Your task to perform on an android device: Go to ESPN.com Image 0: 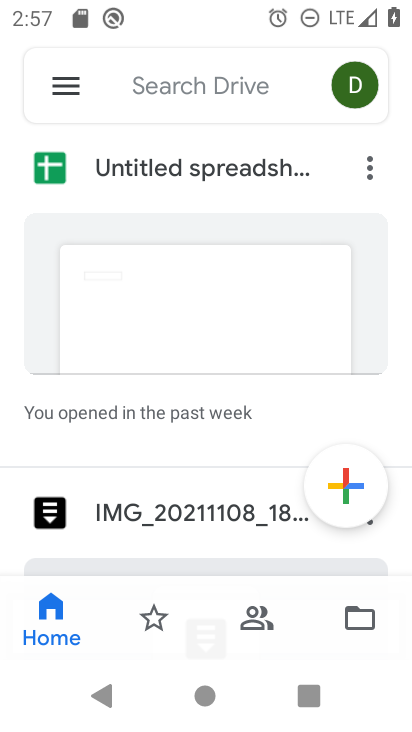
Step 0: press home button
Your task to perform on an android device: Go to ESPN.com Image 1: 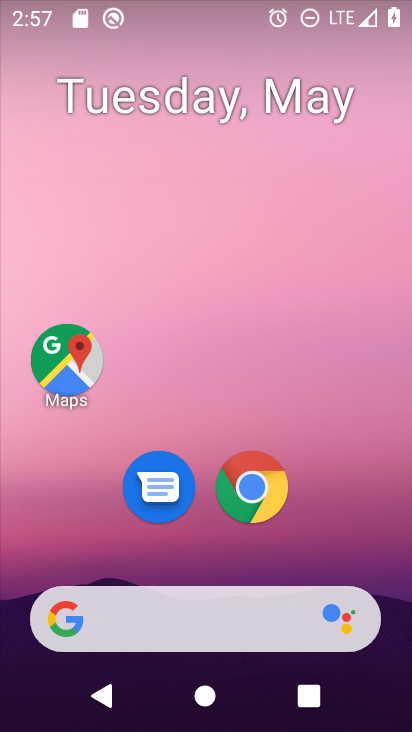
Step 1: click (258, 480)
Your task to perform on an android device: Go to ESPN.com Image 2: 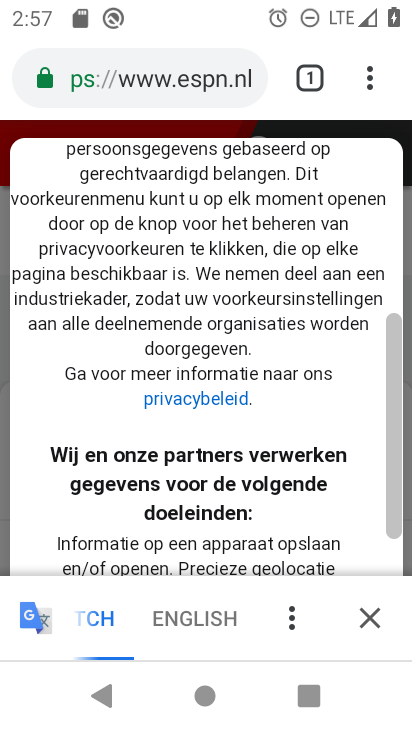
Step 2: click (299, 80)
Your task to perform on an android device: Go to ESPN.com Image 3: 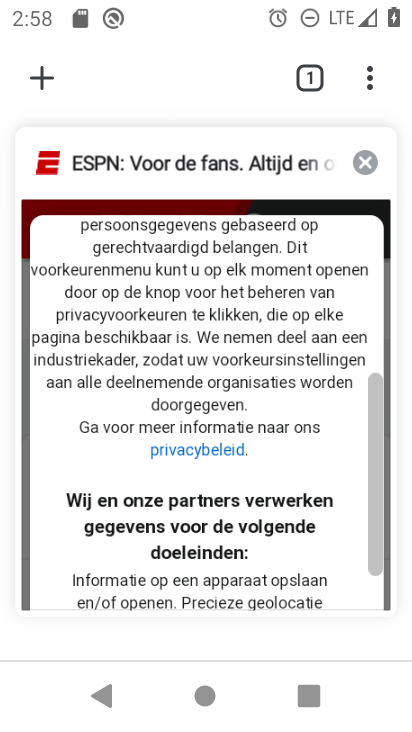
Step 3: click (36, 79)
Your task to perform on an android device: Go to ESPN.com Image 4: 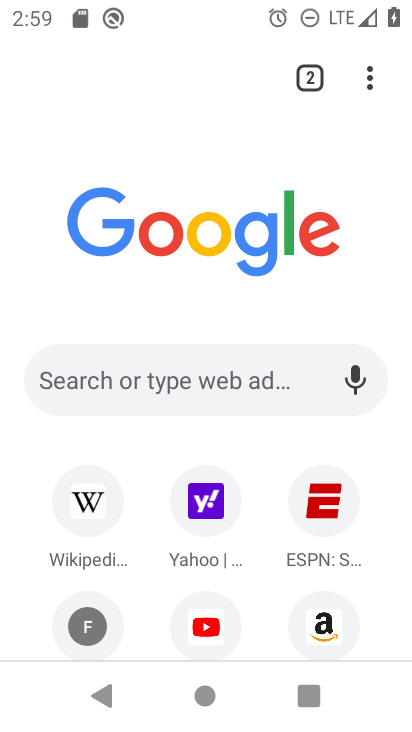
Step 4: click (323, 498)
Your task to perform on an android device: Go to ESPN.com Image 5: 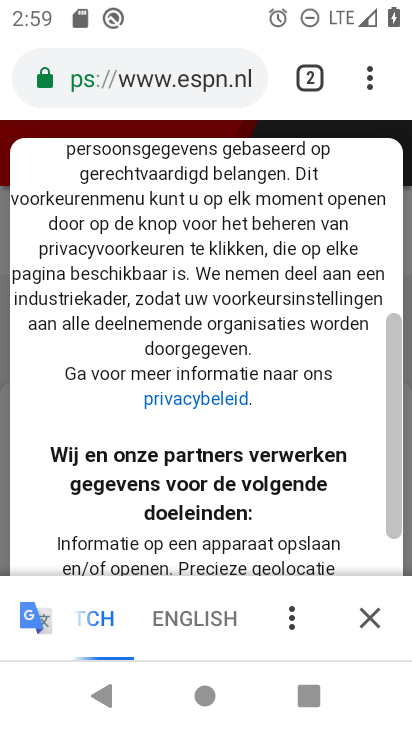
Step 5: task complete